Your task to perform on an android device: turn on priority inbox in the gmail app Image 0: 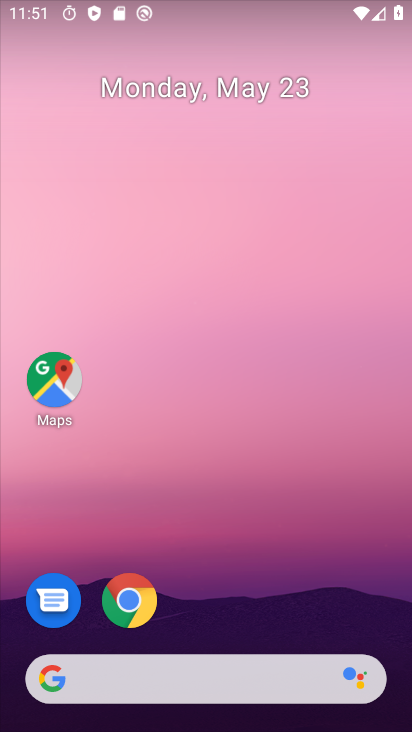
Step 0: drag from (287, 537) to (262, 93)
Your task to perform on an android device: turn on priority inbox in the gmail app Image 1: 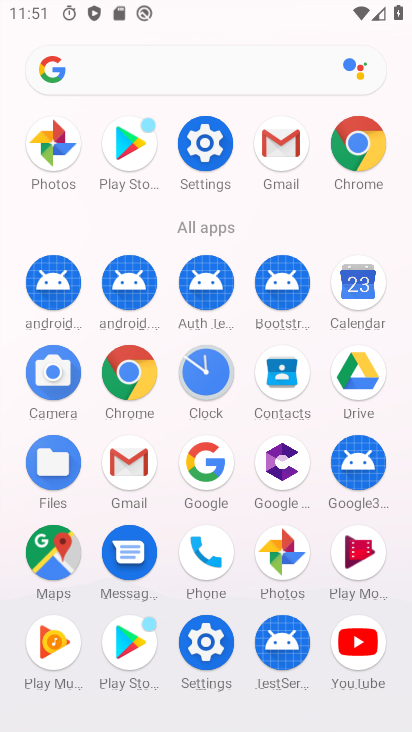
Step 1: click (275, 146)
Your task to perform on an android device: turn on priority inbox in the gmail app Image 2: 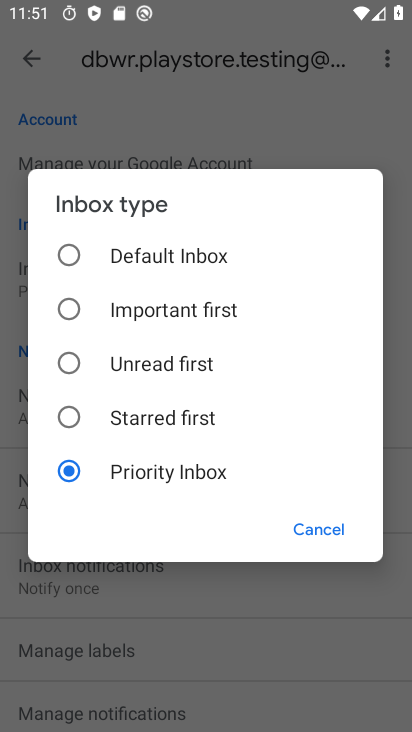
Step 2: click (315, 531)
Your task to perform on an android device: turn on priority inbox in the gmail app Image 3: 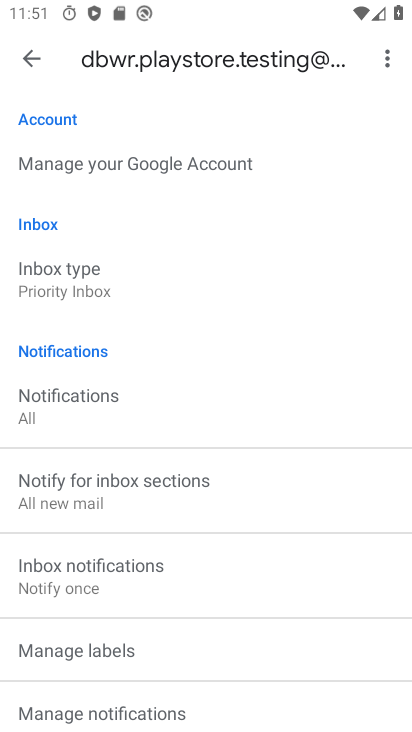
Step 3: click (85, 299)
Your task to perform on an android device: turn on priority inbox in the gmail app Image 4: 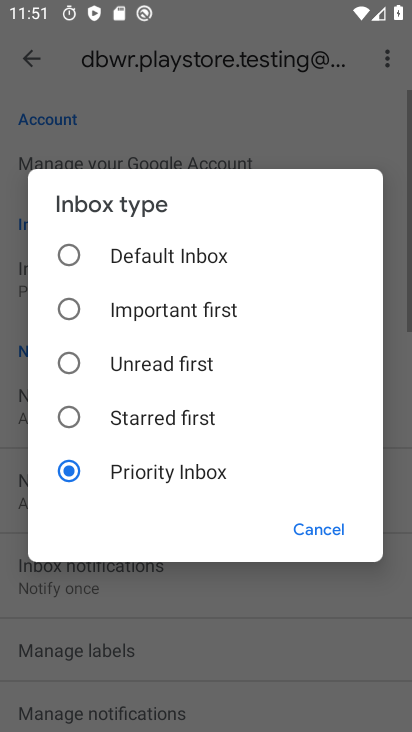
Step 4: task complete